Your task to perform on an android device: toggle data saver in the chrome app Image 0: 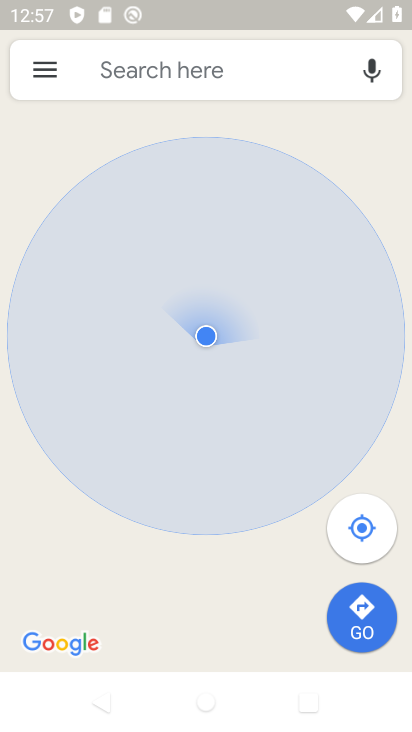
Step 0: press home button
Your task to perform on an android device: toggle data saver in the chrome app Image 1: 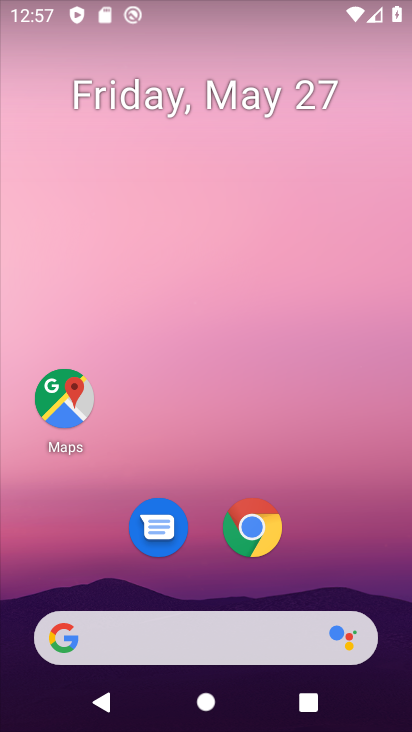
Step 1: click (269, 538)
Your task to perform on an android device: toggle data saver in the chrome app Image 2: 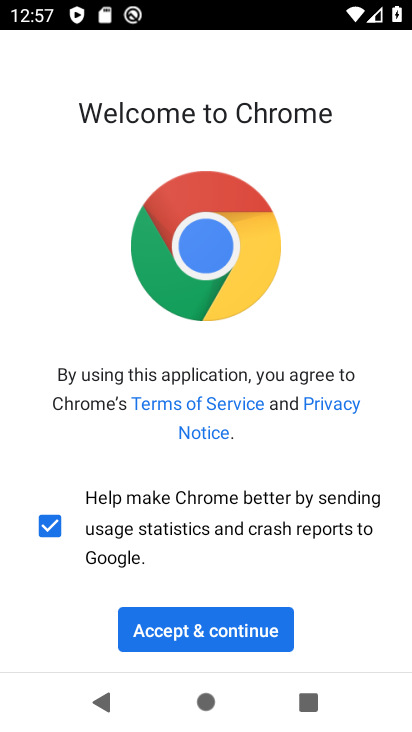
Step 2: click (281, 609)
Your task to perform on an android device: toggle data saver in the chrome app Image 3: 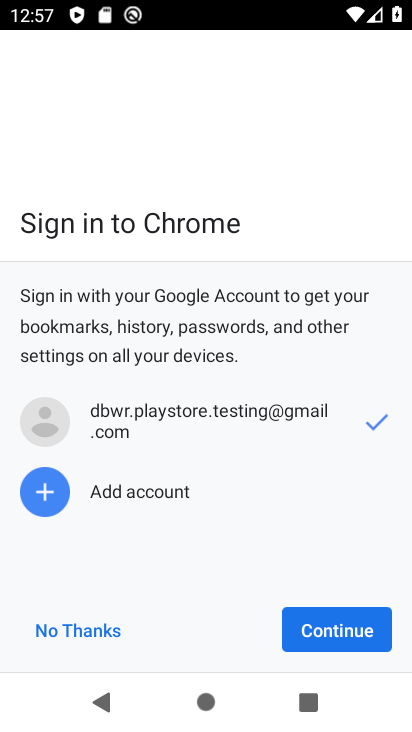
Step 3: click (303, 623)
Your task to perform on an android device: toggle data saver in the chrome app Image 4: 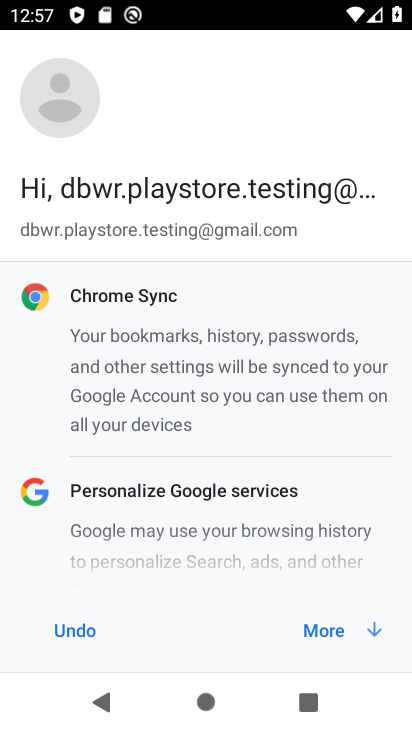
Step 4: click (307, 622)
Your task to perform on an android device: toggle data saver in the chrome app Image 5: 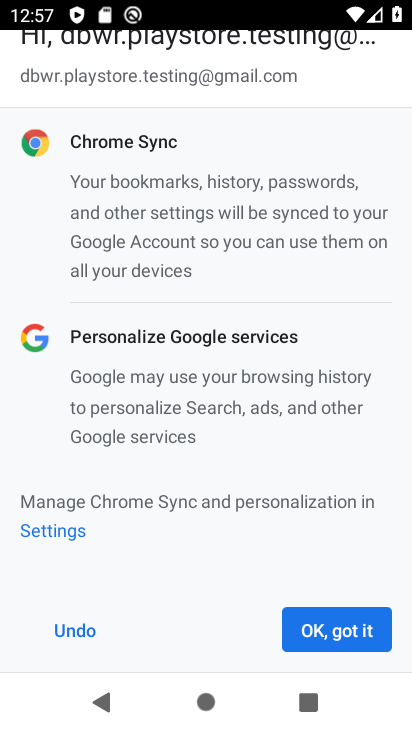
Step 5: click (312, 626)
Your task to perform on an android device: toggle data saver in the chrome app Image 6: 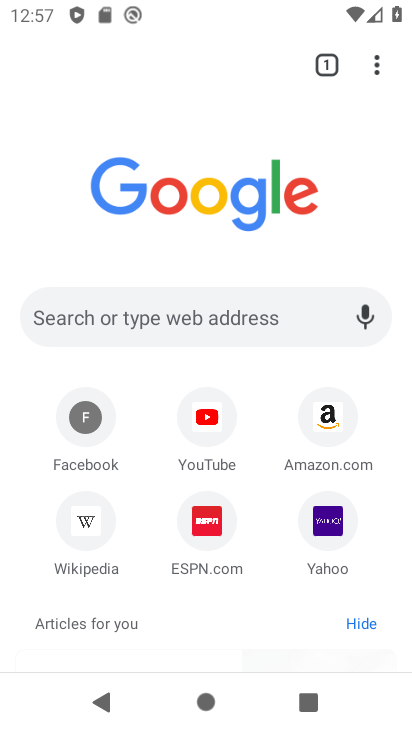
Step 6: click (375, 53)
Your task to perform on an android device: toggle data saver in the chrome app Image 7: 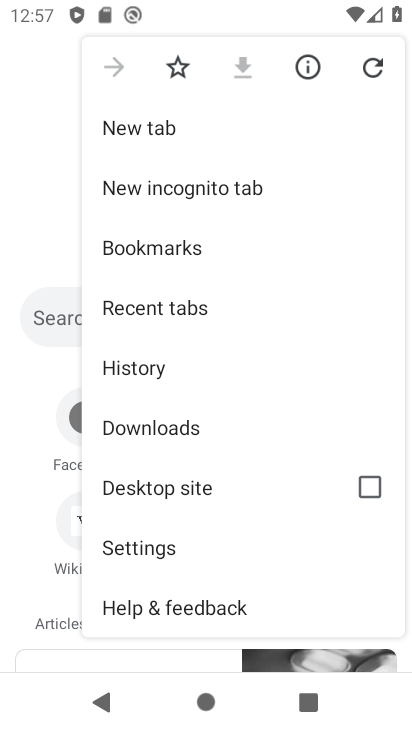
Step 7: drag from (291, 492) to (292, 242)
Your task to perform on an android device: toggle data saver in the chrome app Image 8: 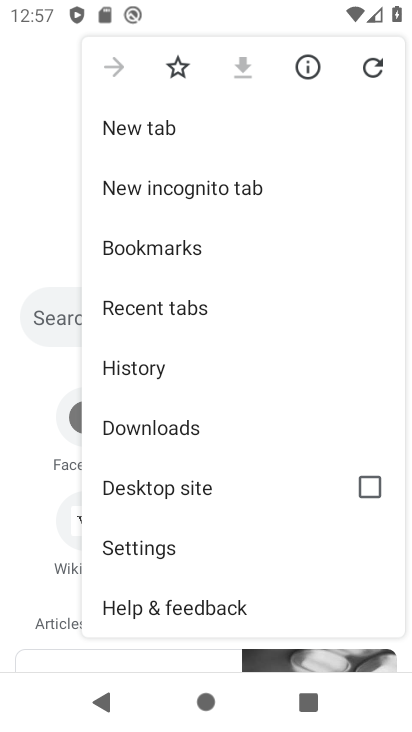
Step 8: click (229, 545)
Your task to perform on an android device: toggle data saver in the chrome app Image 9: 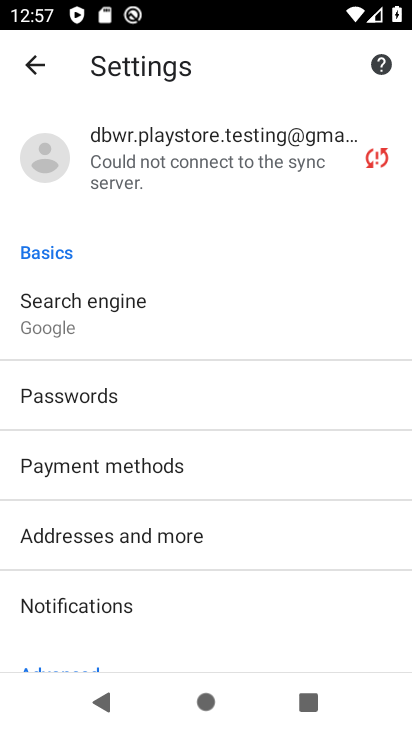
Step 9: drag from (232, 574) to (280, 287)
Your task to perform on an android device: toggle data saver in the chrome app Image 10: 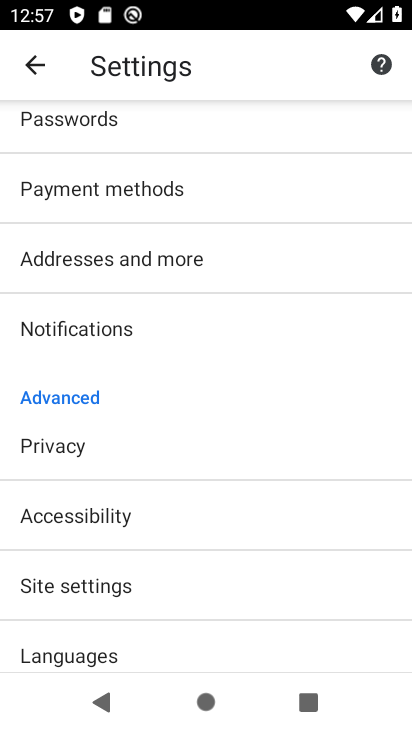
Step 10: drag from (250, 558) to (283, 345)
Your task to perform on an android device: toggle data saver in the chrome app Image 11: 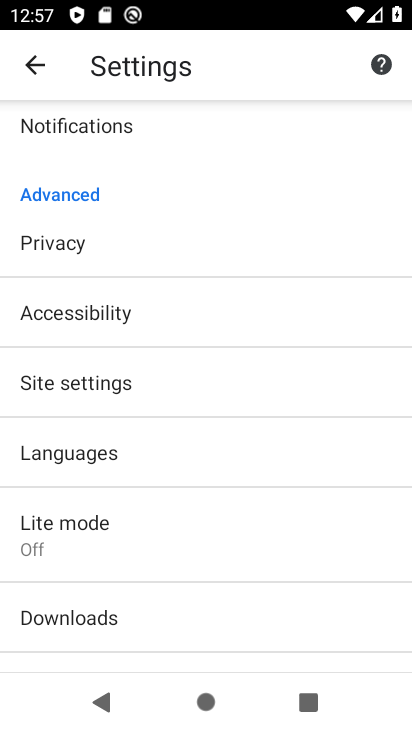
Step 11: click (158, 523)
Your task to perform on an android device: toggle data saver in the chrome app Image 12: 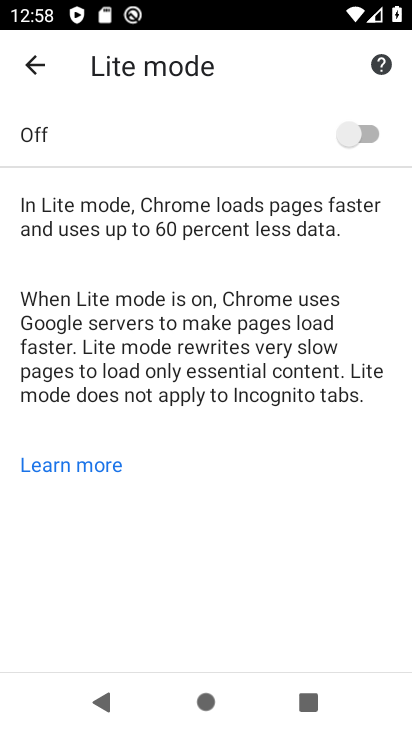
Step 12: click (353, 125)
Your task to perform on an android device: toggle data saver in the chrome app Image 13: 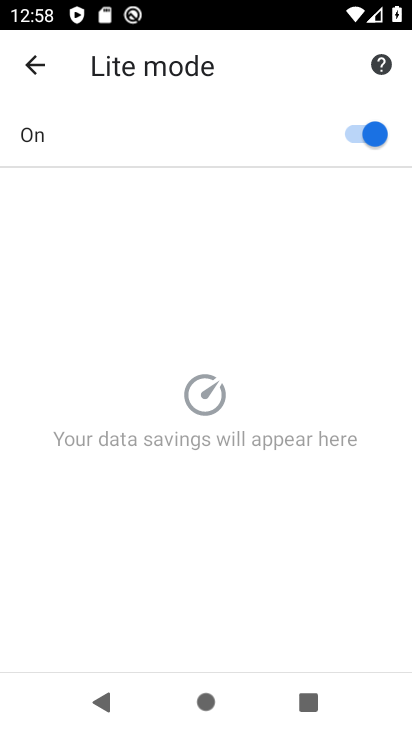
Step 13: task complete